Your task to perform on an android device: Open Maps and search for coffee Image 0: 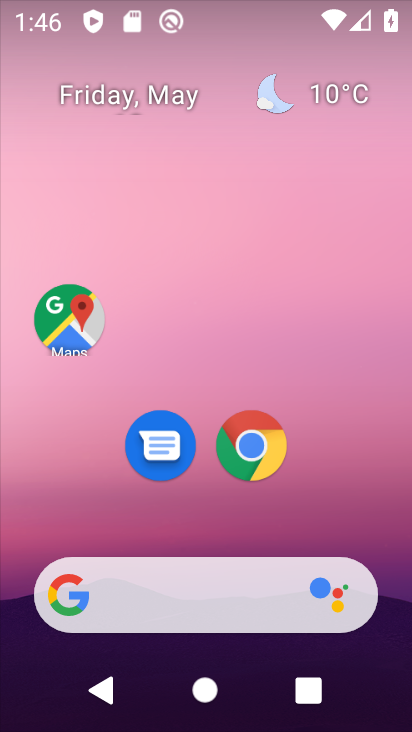
Step 0: click (41, 329)
Your task to perform on an android device: Open Maps and search for coffee Image 1: 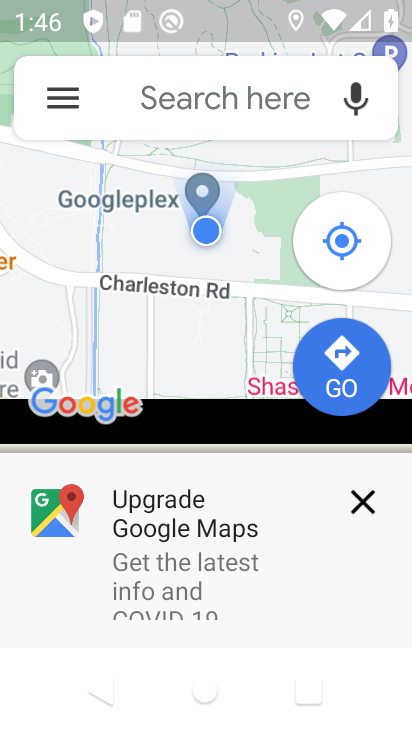
Step 1: click (252, 101)
Your task to perform on an android device: Open Maps and search for coffee Image 2: 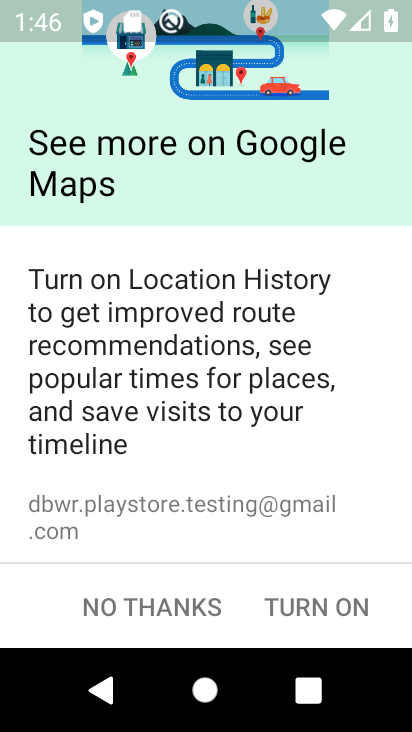
Step 2: click (309, 600)
Your task to perform on an android device: Open Maps and search for coffee Image 3: 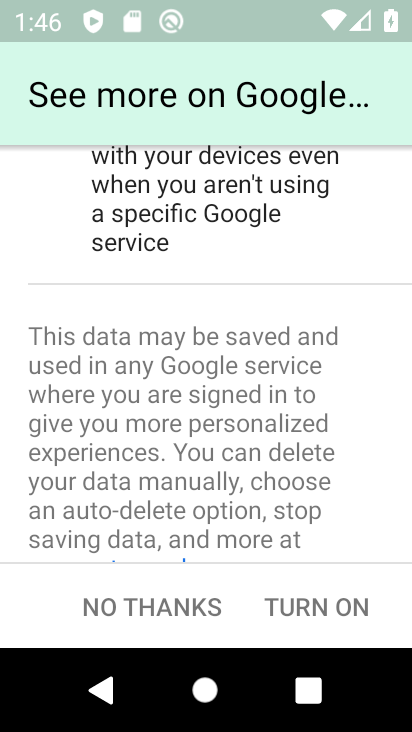
Step 3: click (301, 602)
Your task to perform on an android device: Open Maps and search for coffee Image 4: 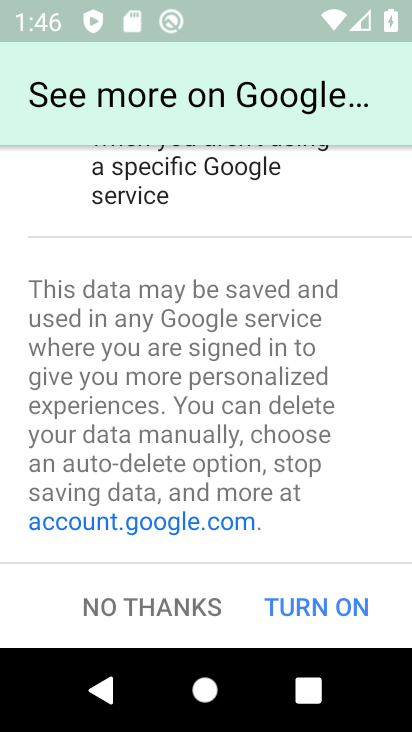
Step 4: click (281, 600)
Your task to perform on an android device: Open Maps and search for coffee Image 5: 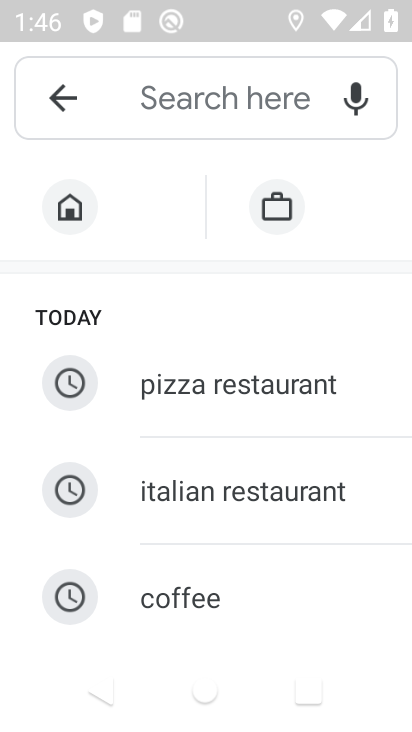
Step 5: click (196, 594)
Your task to perform on an android device: Open Maps and search for coffee Image 6: 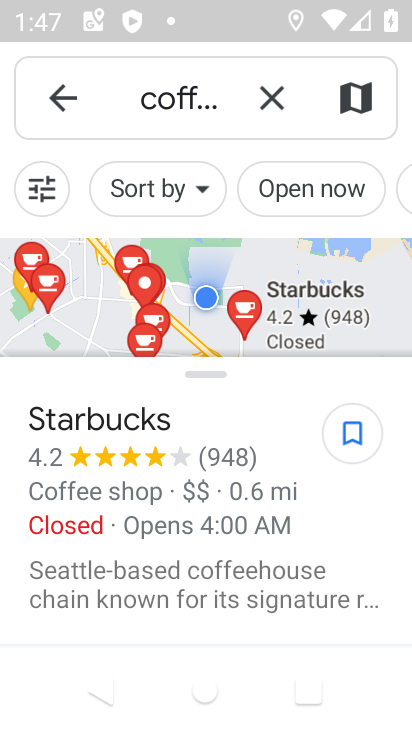
Step 6: task complete